Your task to perform on an android device: turn on wifi Image 0: 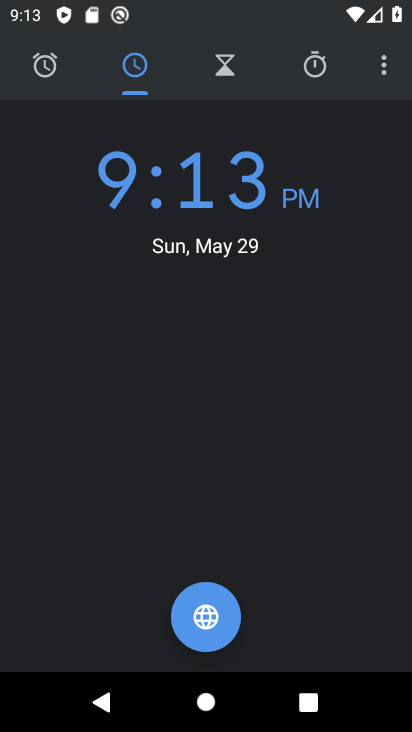
Step 0: press home button
Your task to perform on an android device: turn on wifi Image 1: 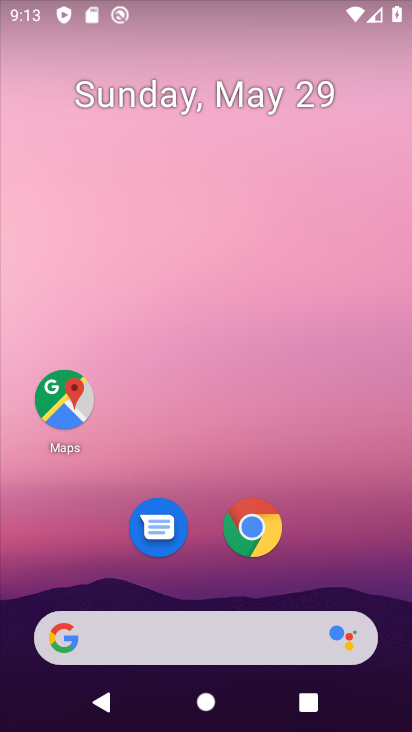
Step 1: drag from (211, 644) to (349, 40)
Your task to perform on an android device: turn on wifi Image 2: 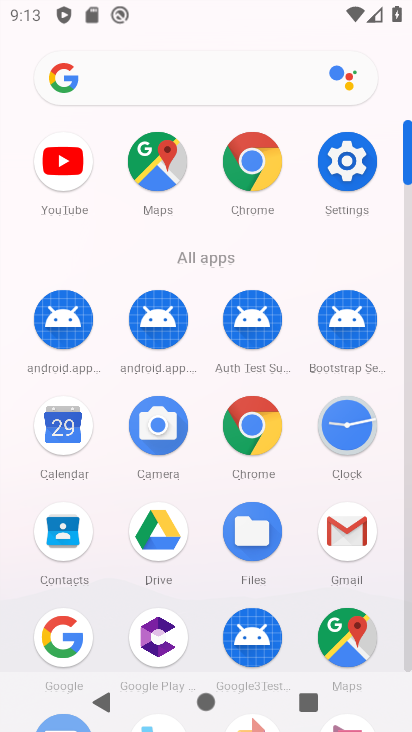
Step 2: click (356, 167)
Your task to perform on an android device: turn on wifi Image 3: 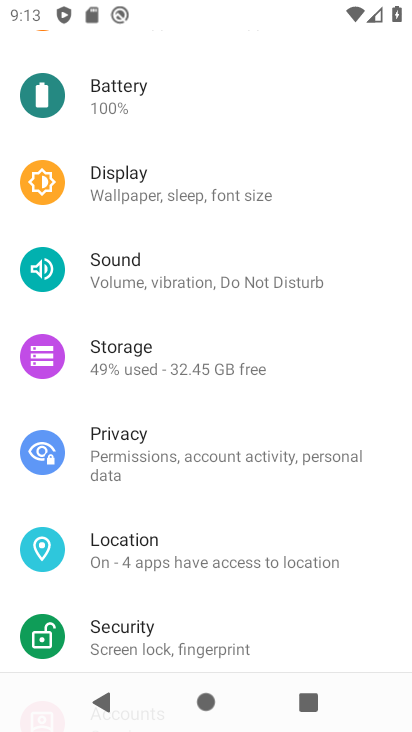
Step 3: drag from (298, 172) to (185, 591)
Your task to perform on an android device: turn on wifi Image 4: 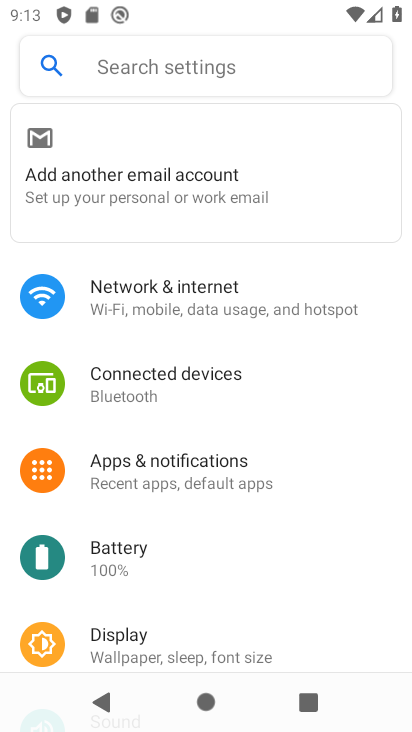
Step 4: click (164, 289)
Your task to perform on an android device: turn on wifi Image 5: 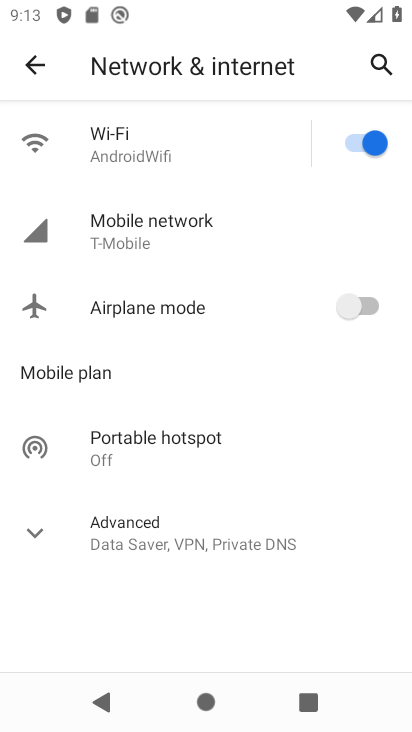
Step 5: task complete